Your task to perform on an android device: add a label to a message in the gmail app Image 0: 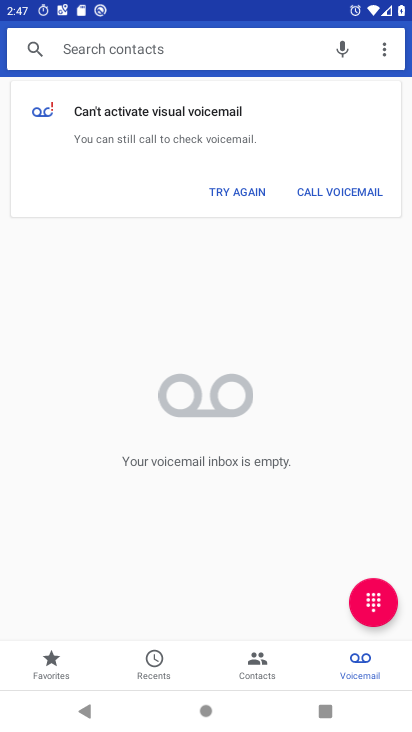
Step 0: click (374, 435)
Your task to perform on an android device: add a label to a message in the gmail app Image 1: 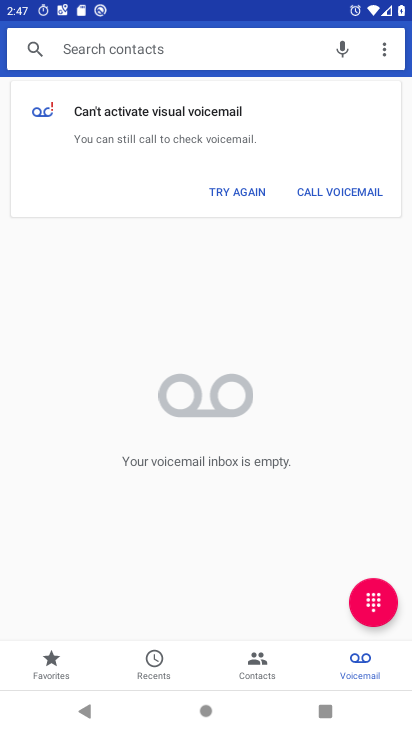
Step 1: click (281, 451)
Your task to perform on an android device: add a label to a message in the gmail app Image 2: 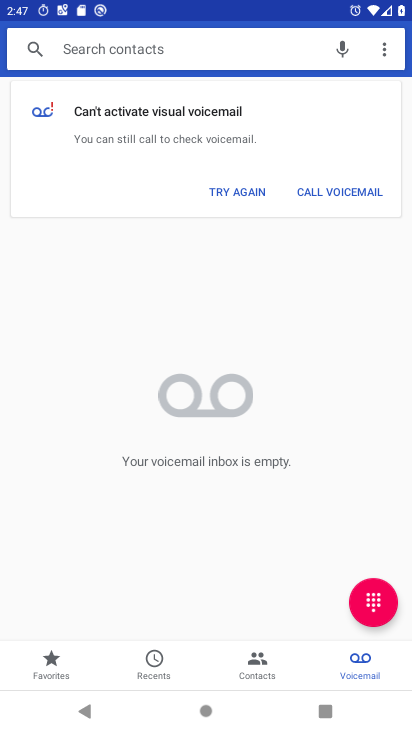
Step 2: press home button
Your task to perform on an android device: add a label to a message in the gmail app Image 3: 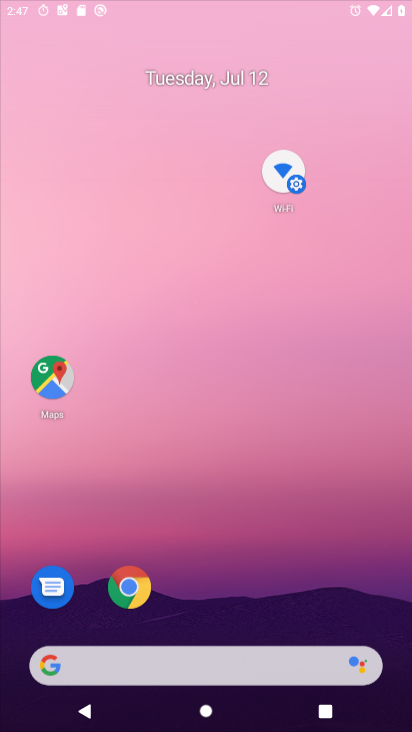
Step 3: drag from (170, 531) to (282, 12)
Your task to perform on an android device: add a label to a message in the gmail app Image 4: 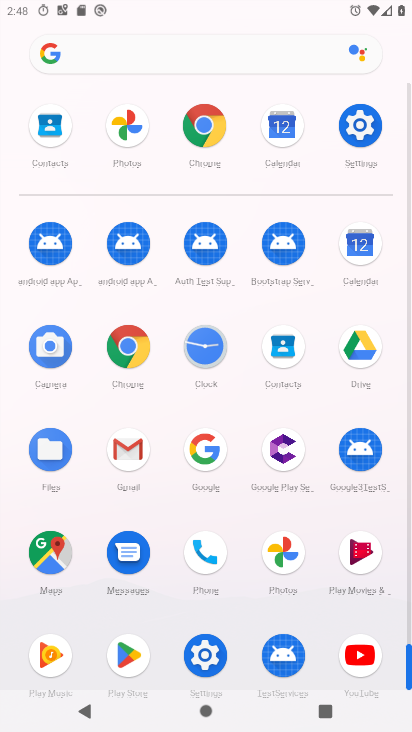
Step 4: click (113, 454)
Your task to perform on an android device: add a label to a message in the gmail app Image 5: 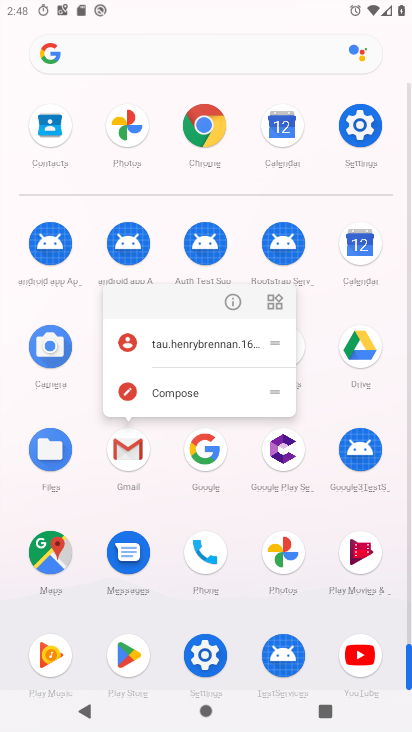
Step 5: click (235, 296)
Your task to perform on an android device: add a label to a message in the gmail app Image 6: 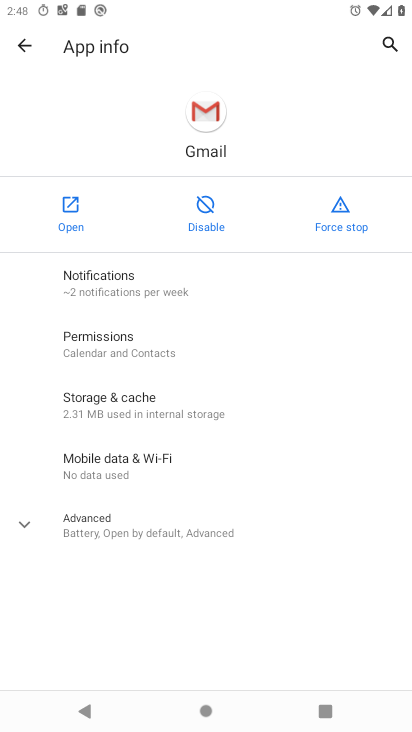
Step 6: click (71, 201)
Your task to perform on an android device: add a label to a message in the gmail app Image 7: 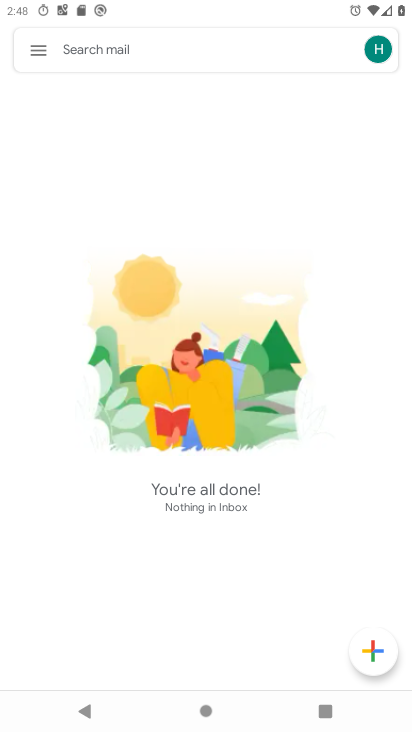
Step 7: drag from (222, 541) to (304, 211)
Your task to perform on an android device: add a label to a message in the gmail app Image 8: 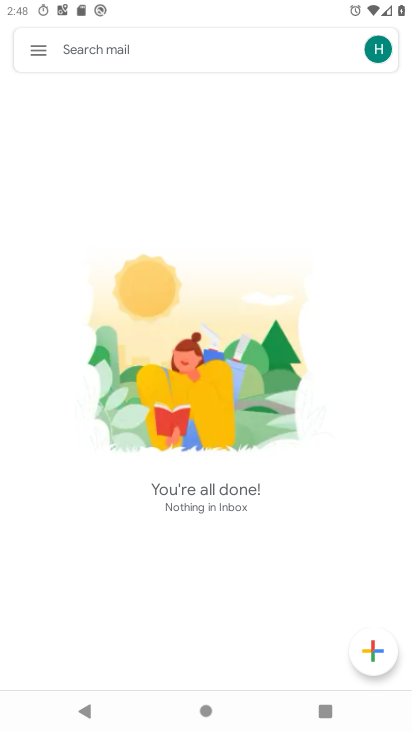
Step 8: click (32, 45)
Your task to perform on an android device: add a label to a message in the gmail app Image 9: 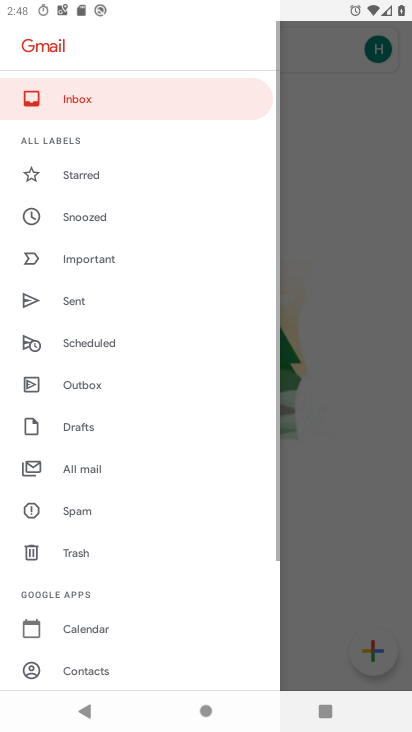
Step 9: click (267, 337)
Your task to perform on an android device: add a label to a message in the gmail app Image 10: 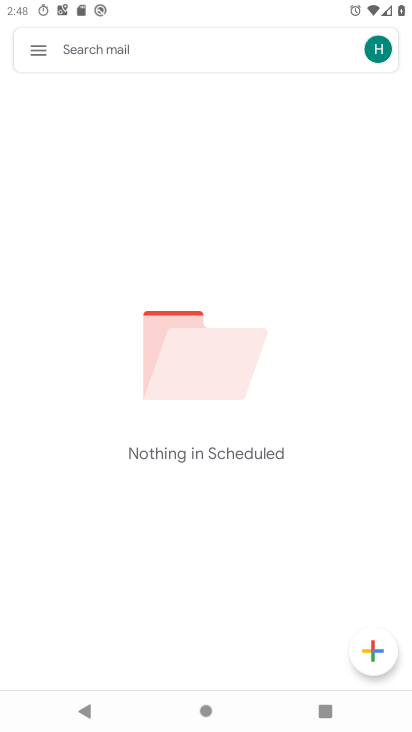
Step 10: task complete